Your task to perform on an android device: delete browsing data in the chrome app Image 0: 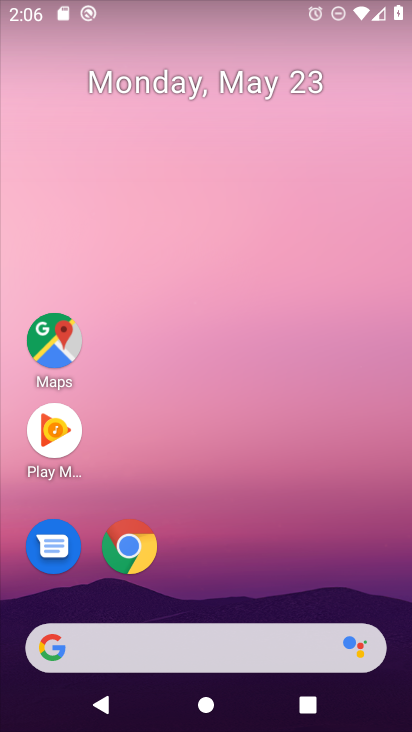
Step 0: drag from (210, 596) to (283, 161)
Your task to perform on an android device: delete browsing data in the chrome app Image 1: 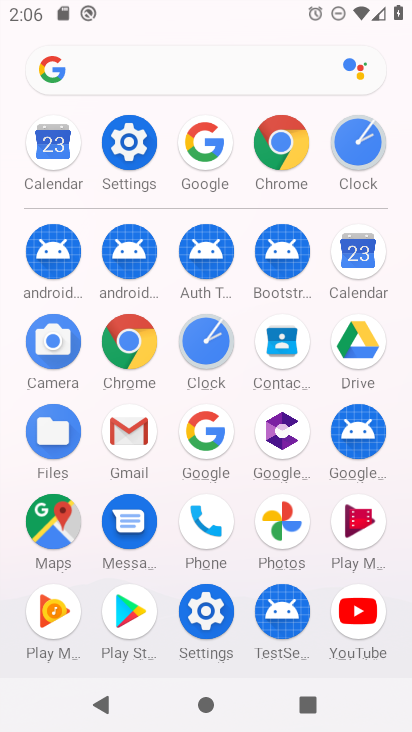
Step 1: click (136, 353)
Your task to perform on an android device: delete browsing data in the chrome app Image 2: 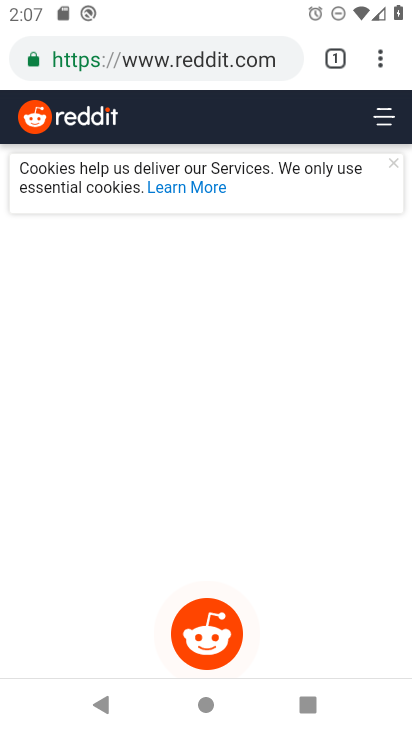
Step 2: click (382, 62)
Your task to perform on an android device: delete browsing data in the chrome app Image 3: 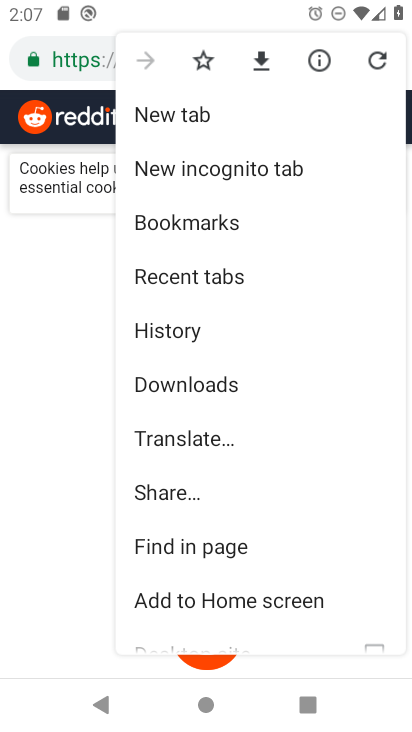
Step 3: click (198, 331)
Your task to perform on an android device: delete browsing data in the chrome app Image 4: 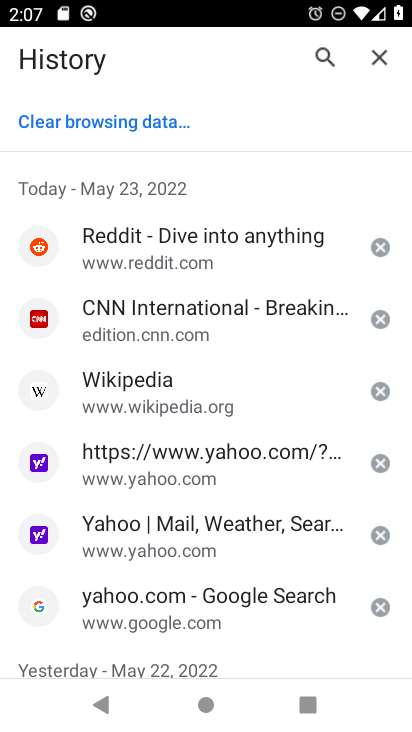
Step 4: click (132, 121)
Your task to perform on an android device: delete browsing data in the chrome app Image 5: 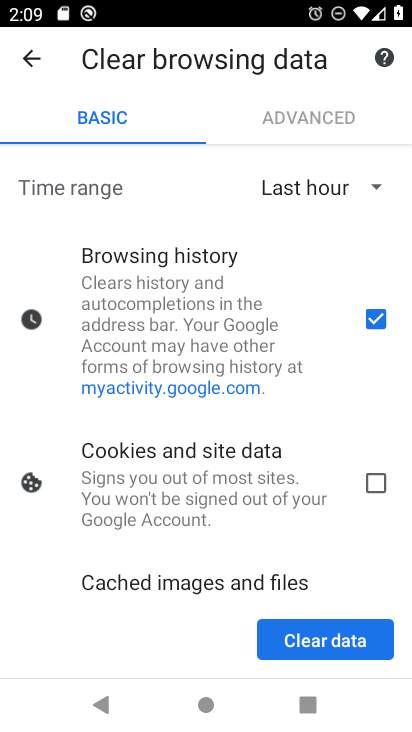
Step 5: click (314, 643)
Your task to perform on an android device: delete browsing data in the chrome app Image 6: 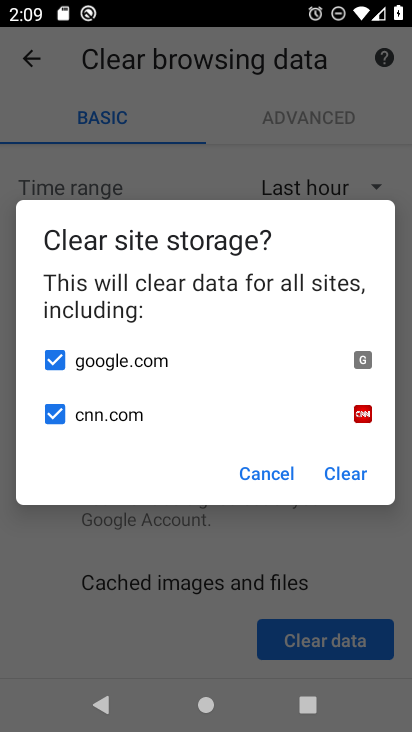
Step 6: click (345, 470)
Your task to perform on an android device: delete browsing data in the chrome app Image 7: 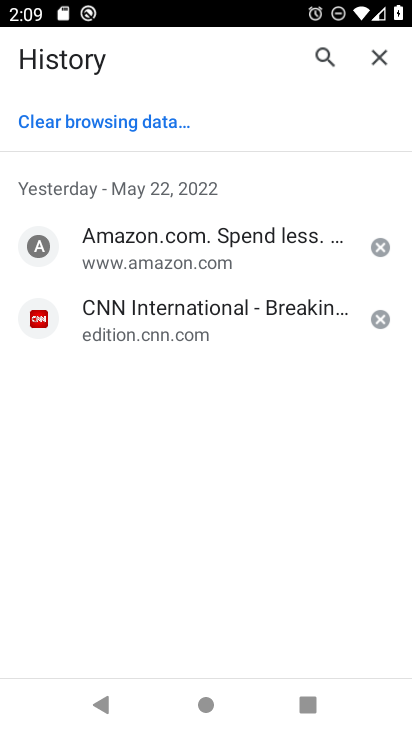
Step 7: task complete